Your task to perform on an android device: change notification settings in the gmail app Image 0: 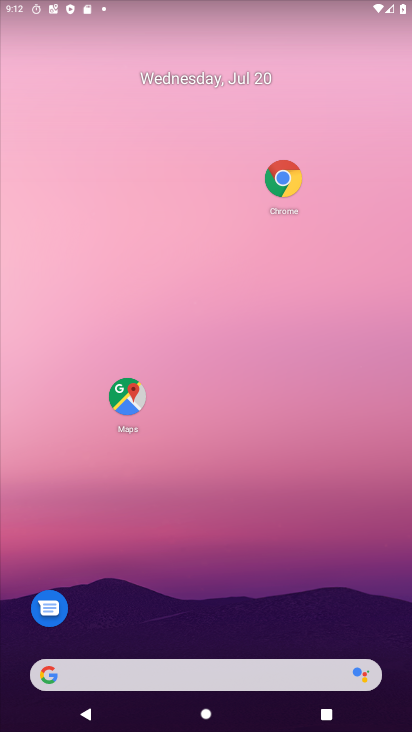
Step 0: drag from (282, 563) to (204, 124)
Your task to perform on an android device: change notification settings in the gmail app Image 1: 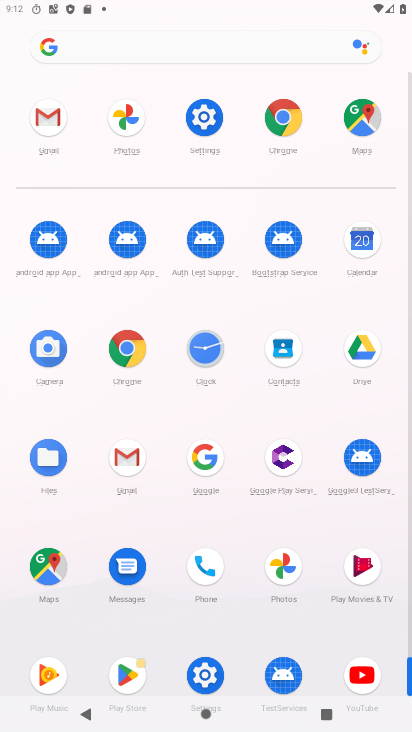
Step 1: click (135, 465)
Your task to perform on an android device: change notification settings in the gmail app Image 2: 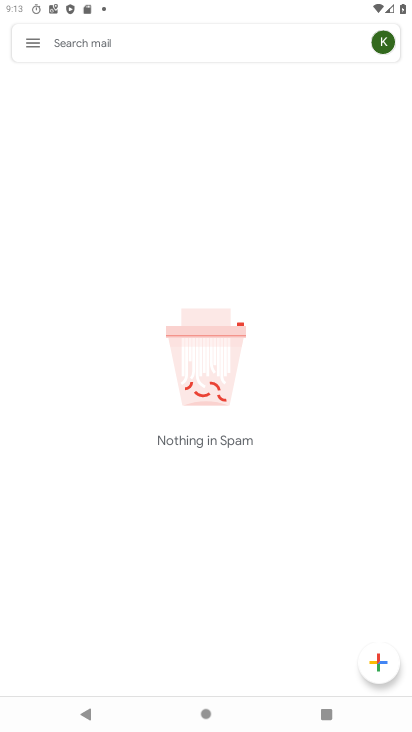
Step 2: click (34, 50)
Your task to perform on an android device: change notification settings in the gmail app Image 3: 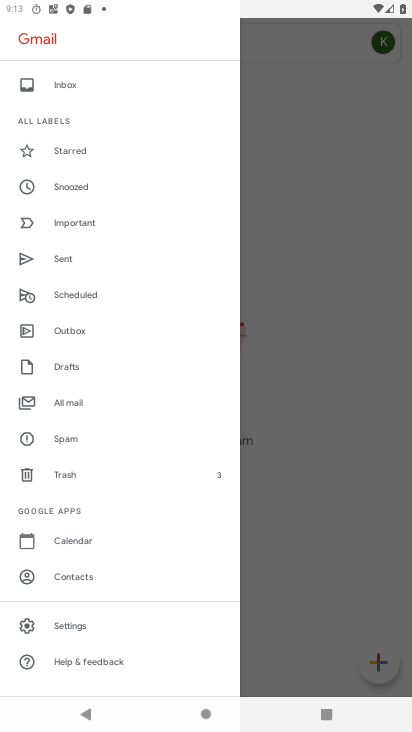
Step 3: click (97, 633)
Your task to perform on an android device: change notification settings in the gmail app Image 4: 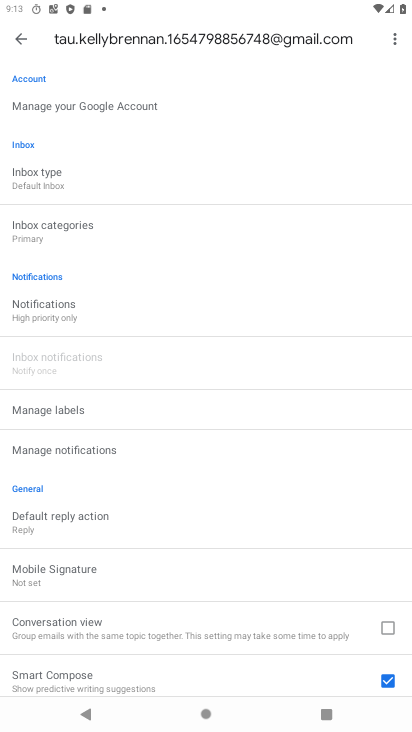
Step 4: click (153, 454)
Your task to perform on an android device: change notification settings in the gmail app Image 5: 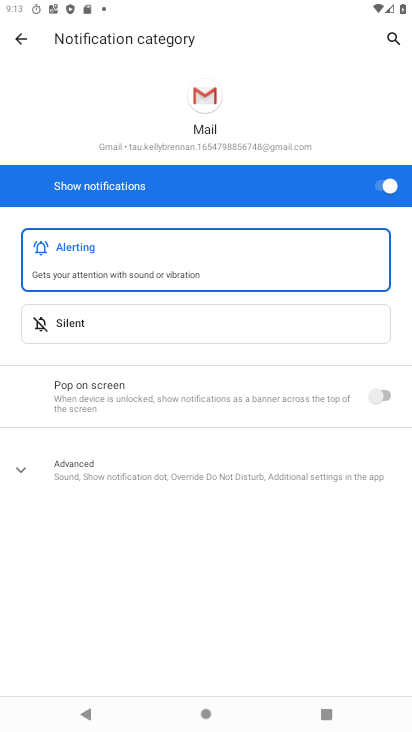
Step 5: click (390, 178)
Your task to perform on an android device: change notification settings in the gmail app Image 6: 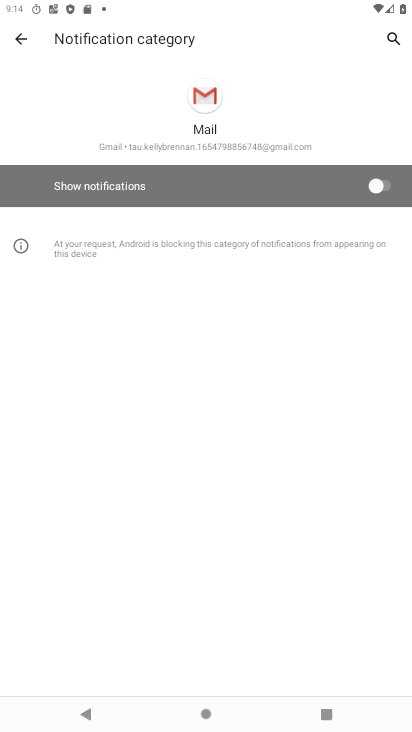
Step 6: task complete